Your task to perform on an android device: turn notification dots on Image 0: 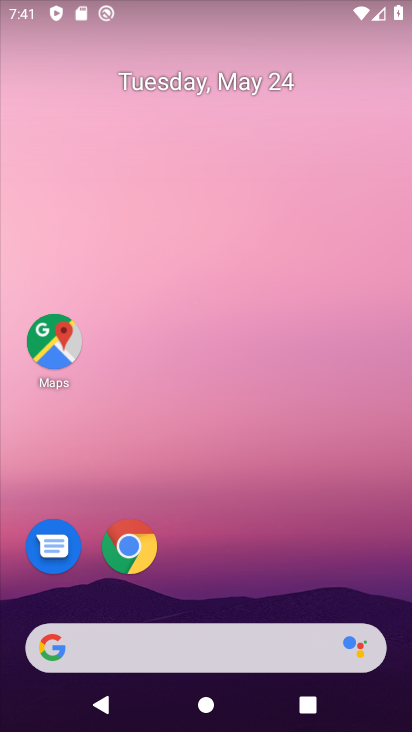
Step 0: drag from (254, 560) to (272, 1)
Your task to perform on an android device: turn notification dots on Image 1: 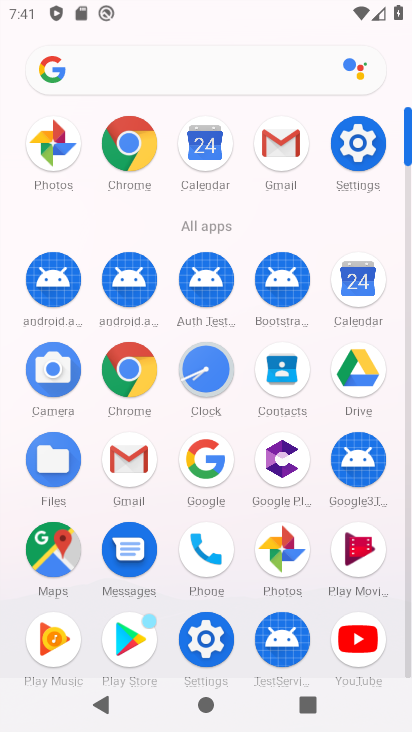
Step 1: click (356, 148)
Your task to perform on an android device: turn notification dots on Image 2: 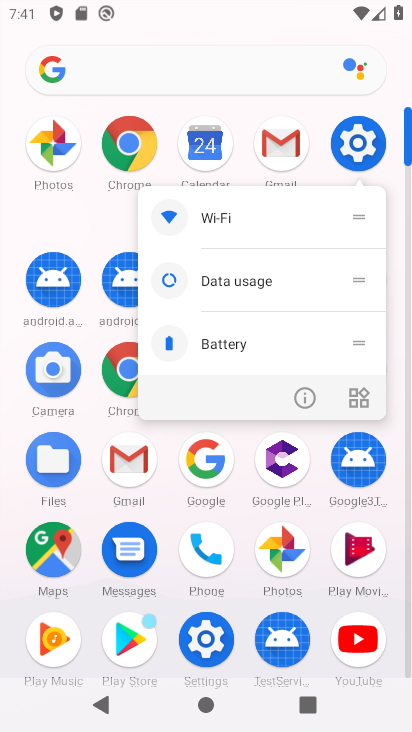
Step 2: click (356, 148)
Your task to perform on an android device: turn notification dots on Image 3: 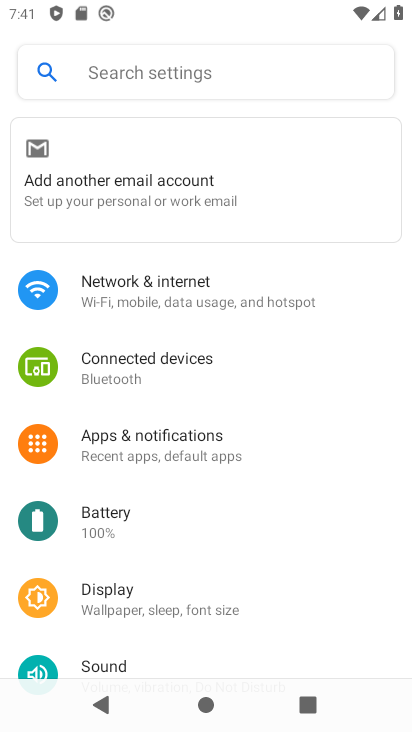
Step 3: click (169, 441)
Your task to perform on an android device: turn notification dots on Image 4: 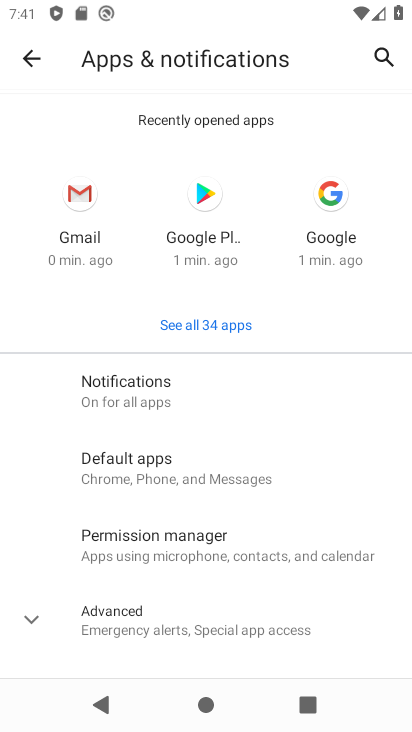
Step 4: click (166, 397)
Your task to perform on an android device: turn notification dots on Image 5: 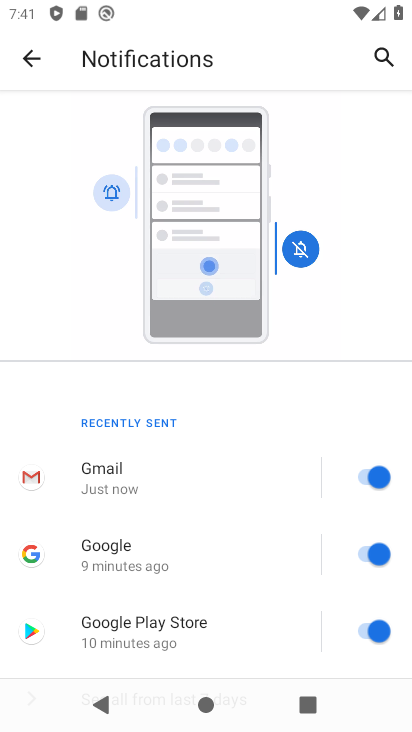
Step 5: drag from (230, 576) to (252, 114)
Your task to perform on an android device: turn notification dots on Image 6: 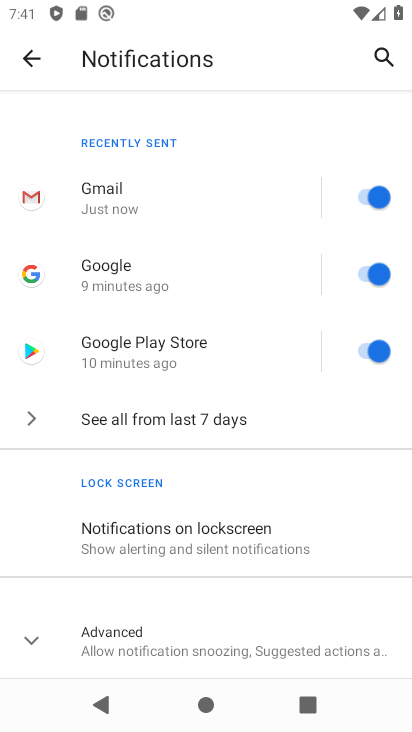
Step 6: click (26, 628)
Your task to perform on an android device: turn notification dots on Image 7: 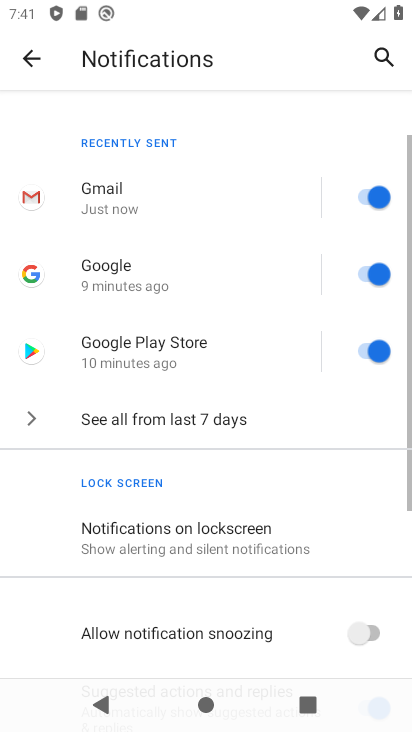
Step 7: task complete